Your task to perform on an android device: turn off location history Image 0: 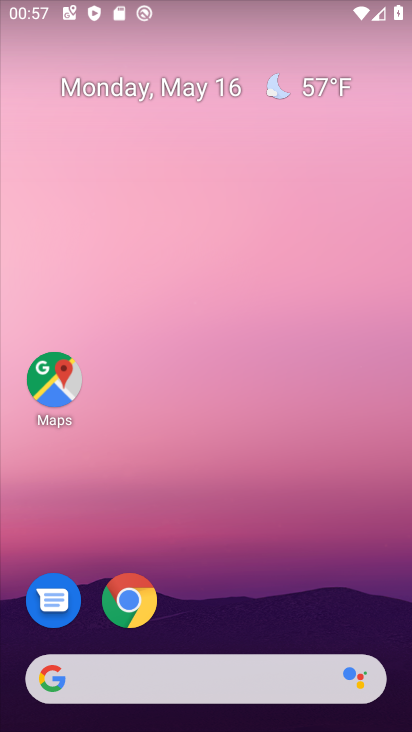
Step 0: click (49, 373)
Your task to perform on an android device: turn off location history Image 1: 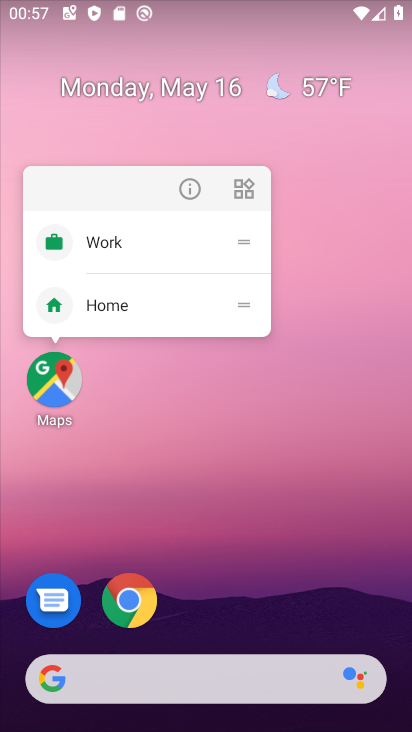
Step 1: click (205, 430)
Your task to perform on an android device: turn off location history Image 2: 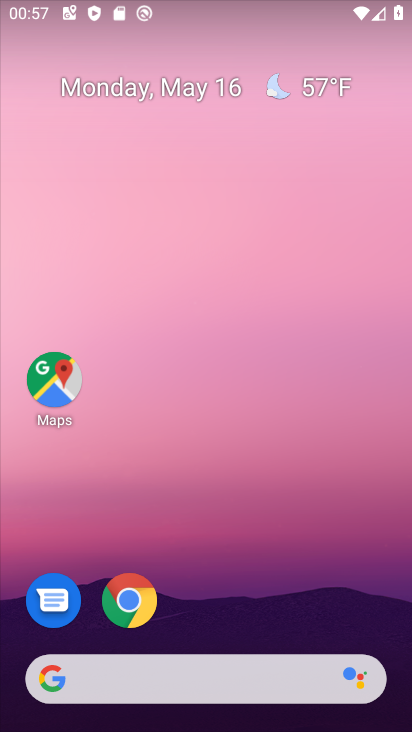
Step 2: drag from (283, 541) to (296, 13)
Your task to perform on an android device: turn off location history Image 3: 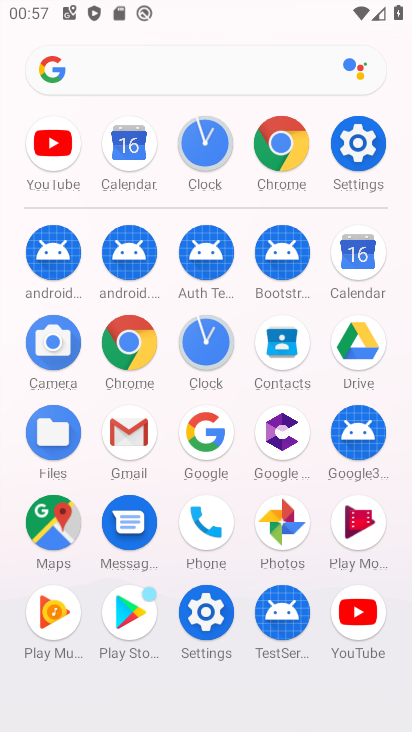
Step 3: click (364, 136)
Your task to perform on an android device: turn off location history Image 4: 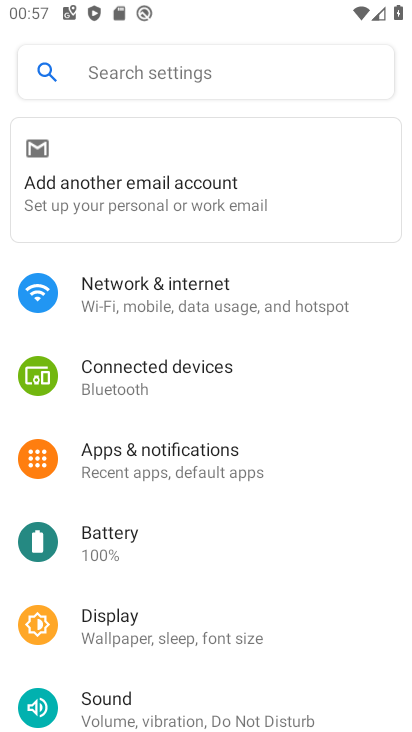
Step 4: drag from (165, 669) to (235, 215)
Your task to perform on an android device: turn off location history Image 5: 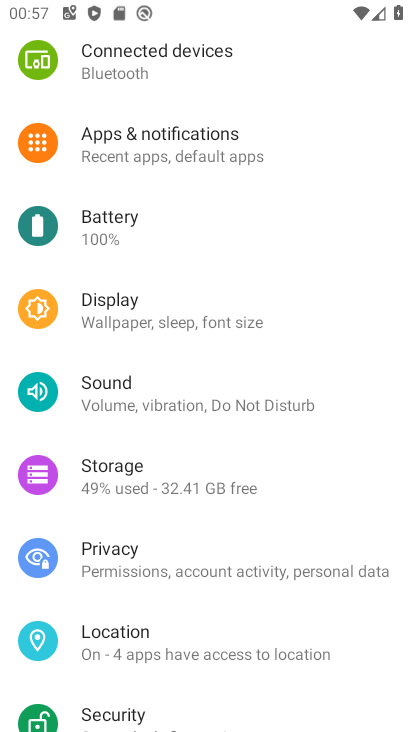
Step 5: click (151, 648)
Your task to perform on an android device: turn off location history Image 6: 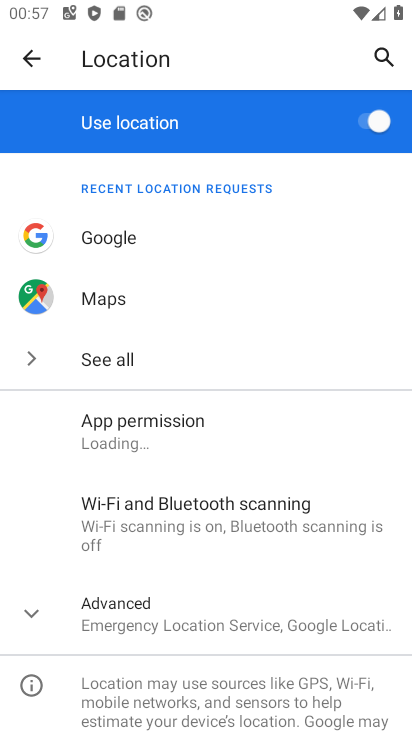
Step 6: click (191, 615)
Your task to perform on an android device: turn off location history Image 7: 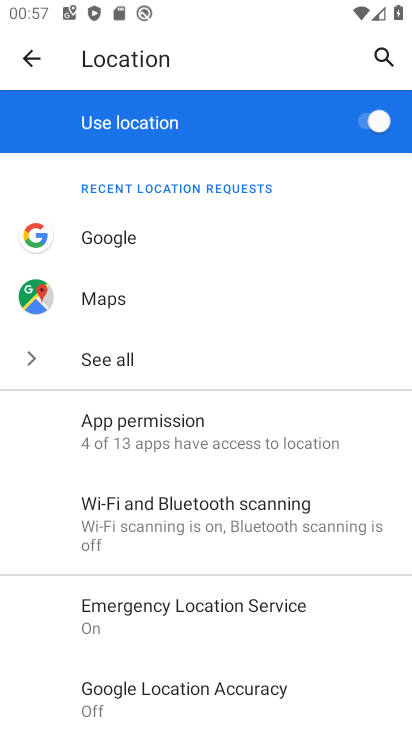
Step 7: drag from (234, 680) to (292, 248)
Your task to perform on an android device: turn off location history Image 8: 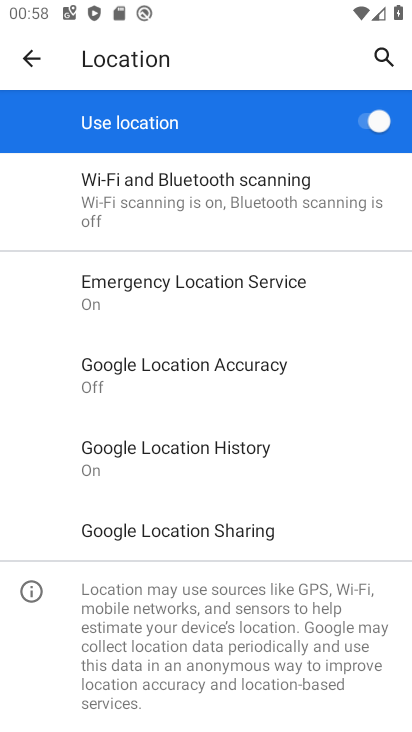
Step 8: click (214, 448)
Your task to perform on an android device: turn off location history Image 9: 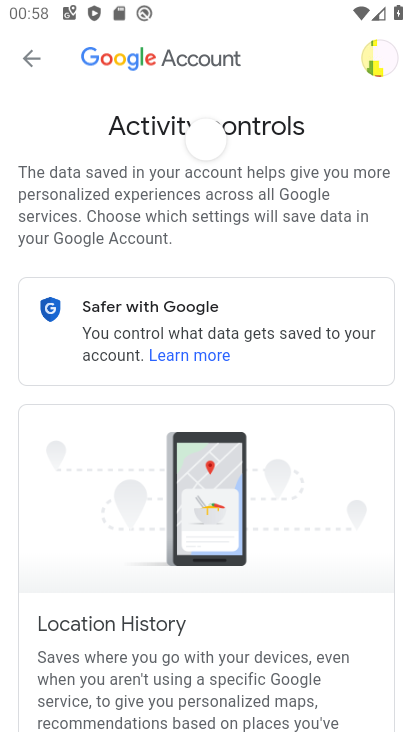
Step 9: drag from (205, 618) to (303, 70)
Your task to perform on an android device: turn off location history Image 10: 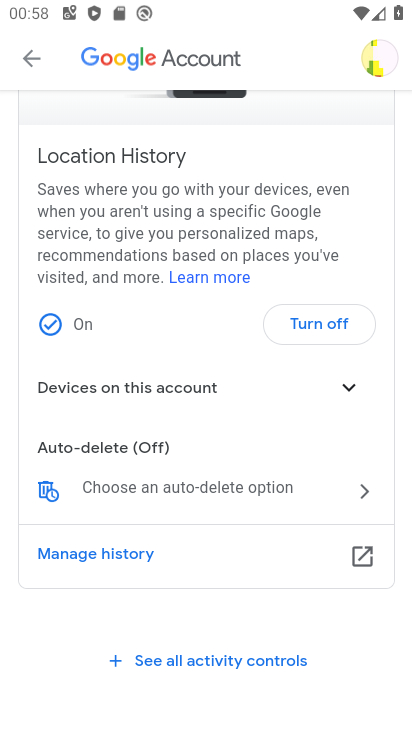
Step 10: click (323, 309)
Your task to perform on an android device: turn off location history Image 11: 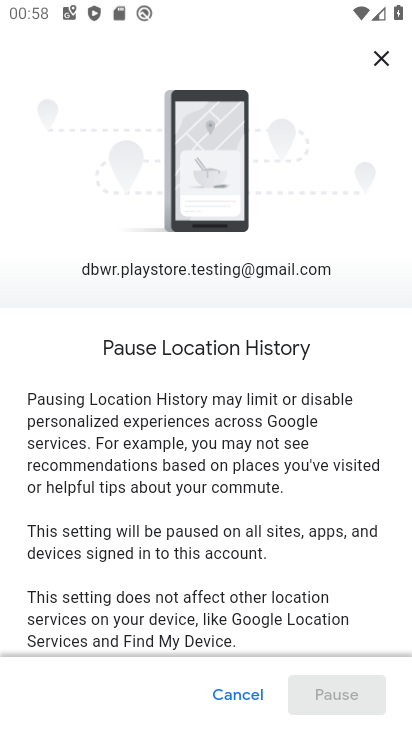
Step 11: drag from (258, 619) to (327, 14)
Your task to perform on an android device: turn off location history Image 12: 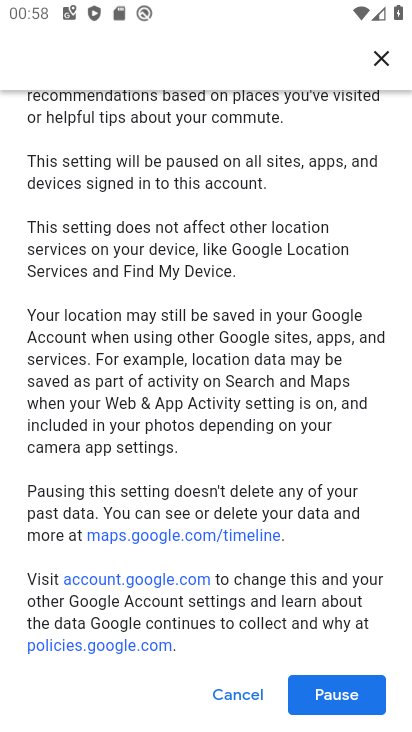
Step 12: click (330, 696)
Your task to perform on an android device: turn off location history Image 13: 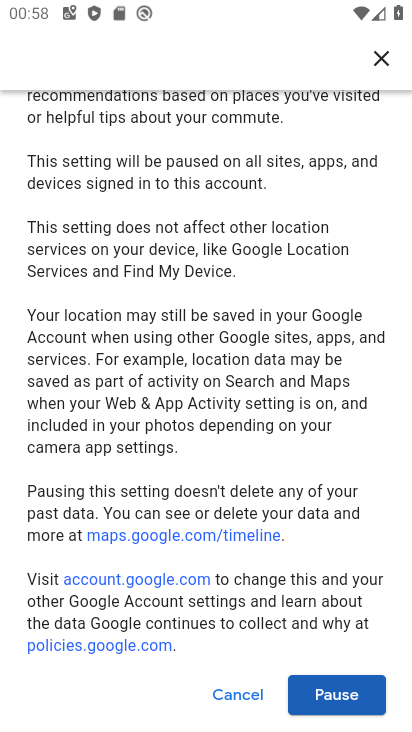
Step 13: click (338, 695)
Your task to perform on an android device: turn off location history Image 14: 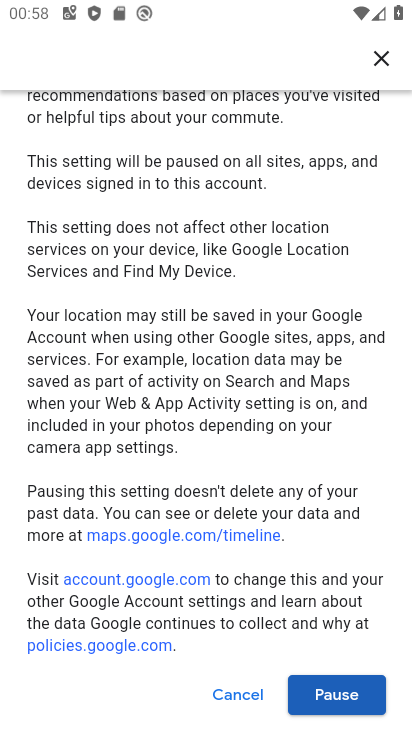
Step 14: click (338, 695)
Your task to perform on an android device: turn off location history Image 15: 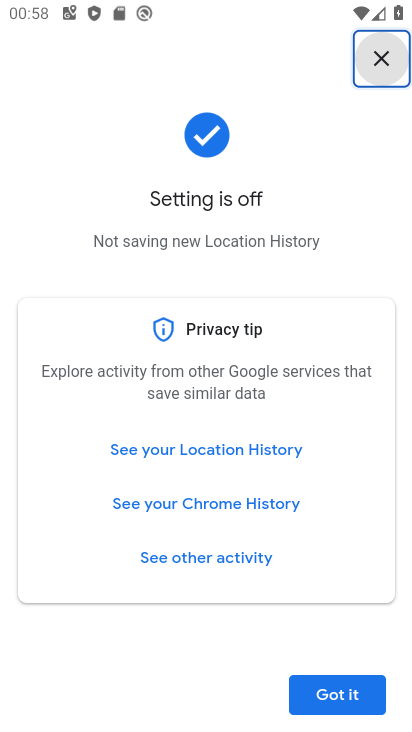
Step 15: task complete